Your task to perform on an android device: uninstall "Move to iOS" Image 0: 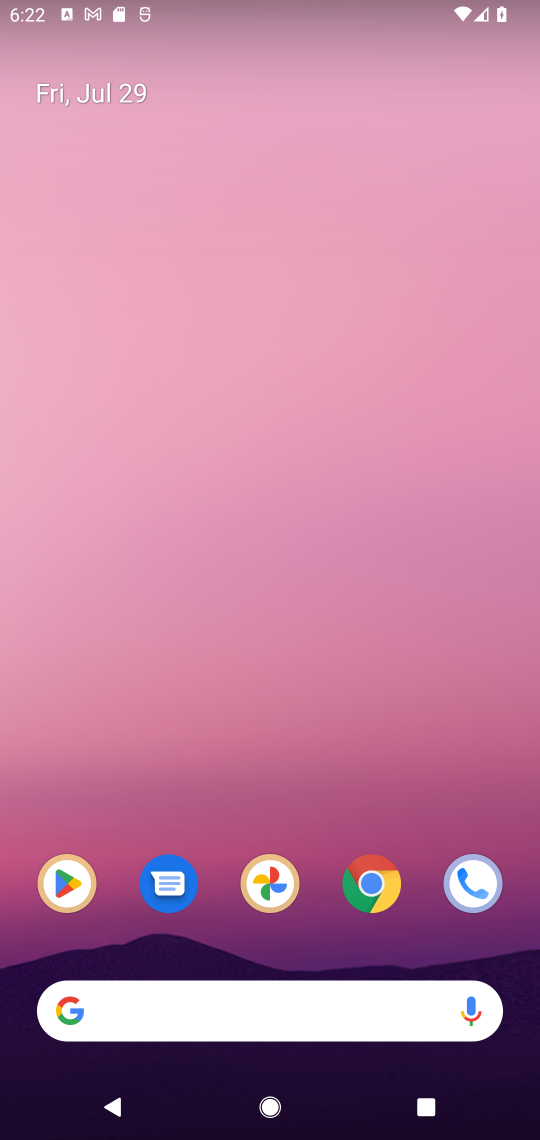
Step 0: click (46, 892)
Your task to perform on an android device: uninstall "Move to iOS" Image 1: 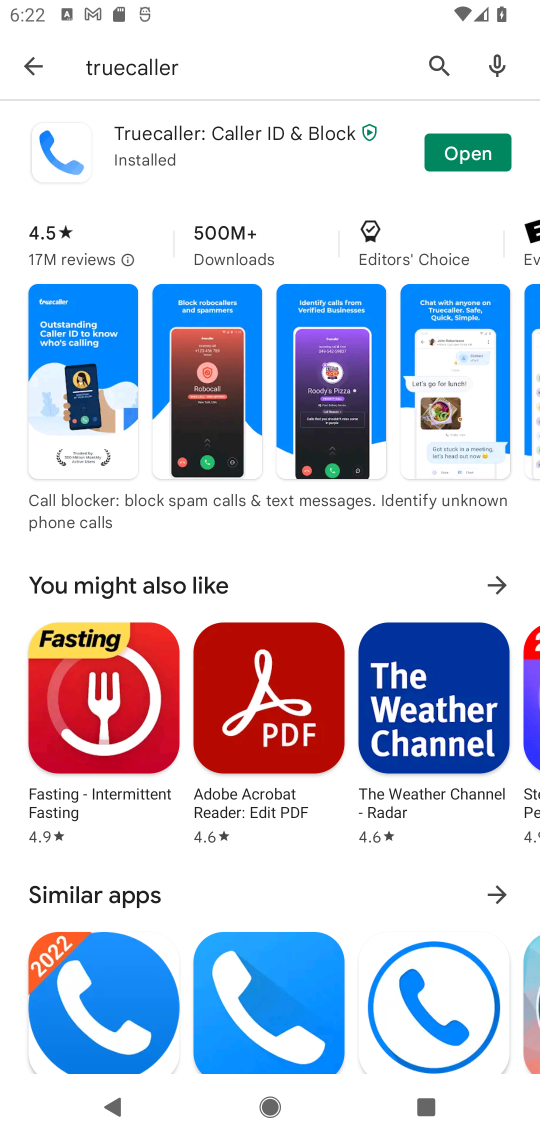
Step 1: click (462, 82)
Your task to perform on an android device: uninstall "Move to iOS" Image 2: 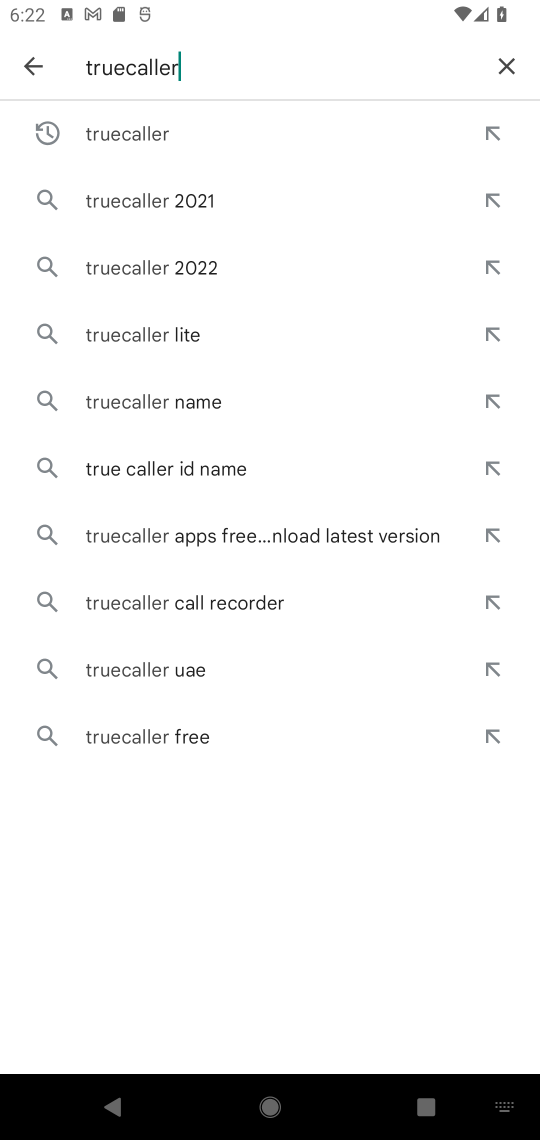
Step 2: click (504, 51)
Your task to perform on an android device: uninstall "Move to iOS" Image 3: 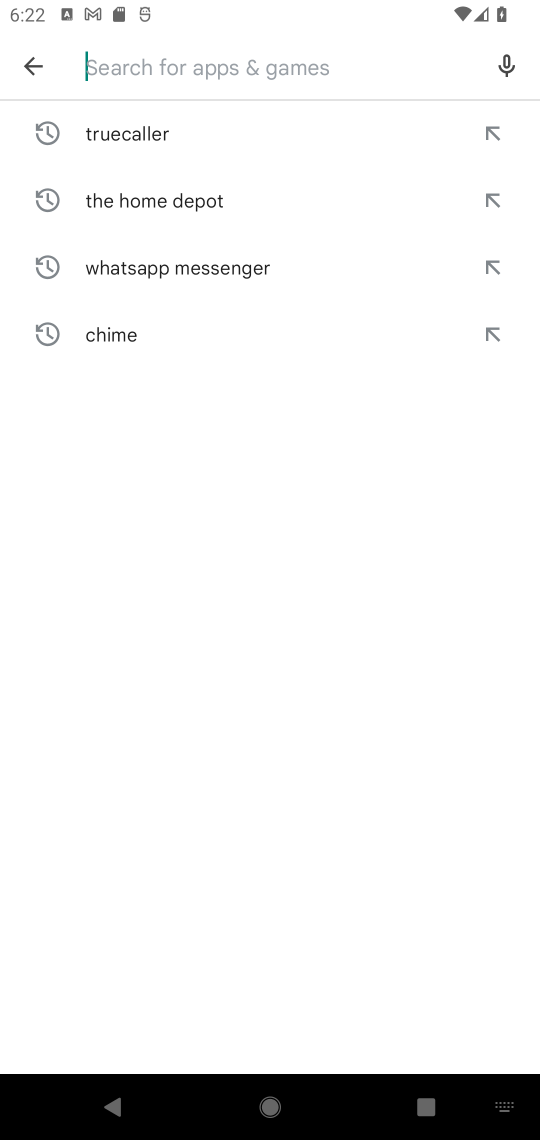
Step 3: click (192, 69)
Your task to perform on an android device: uninstall "Move to iOS" Image 4: 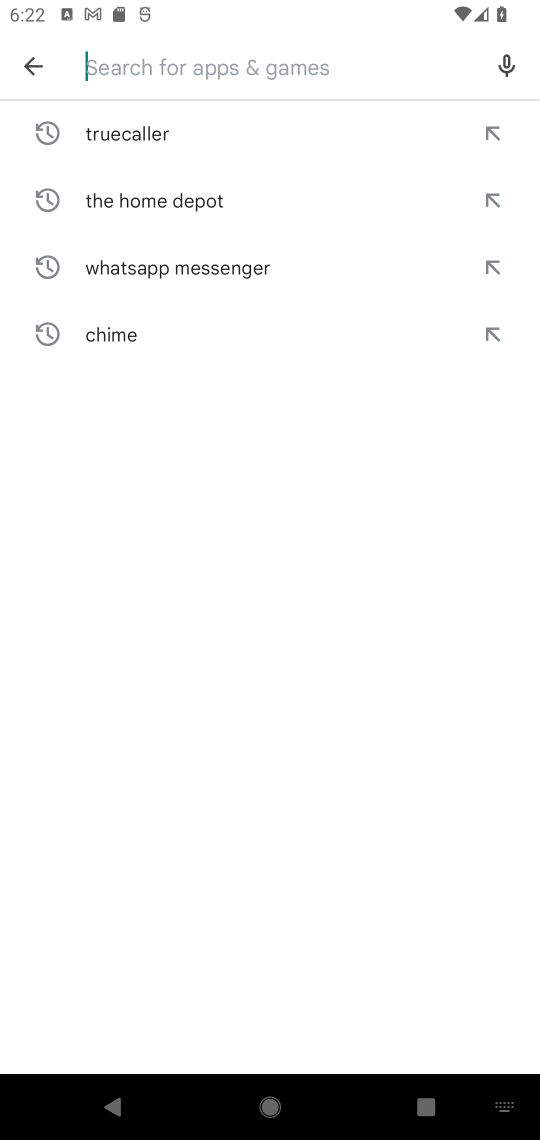
Step 4: click (215, 71)
Your task to perform on an android device: uninstall "Move to iOS" Image 5: 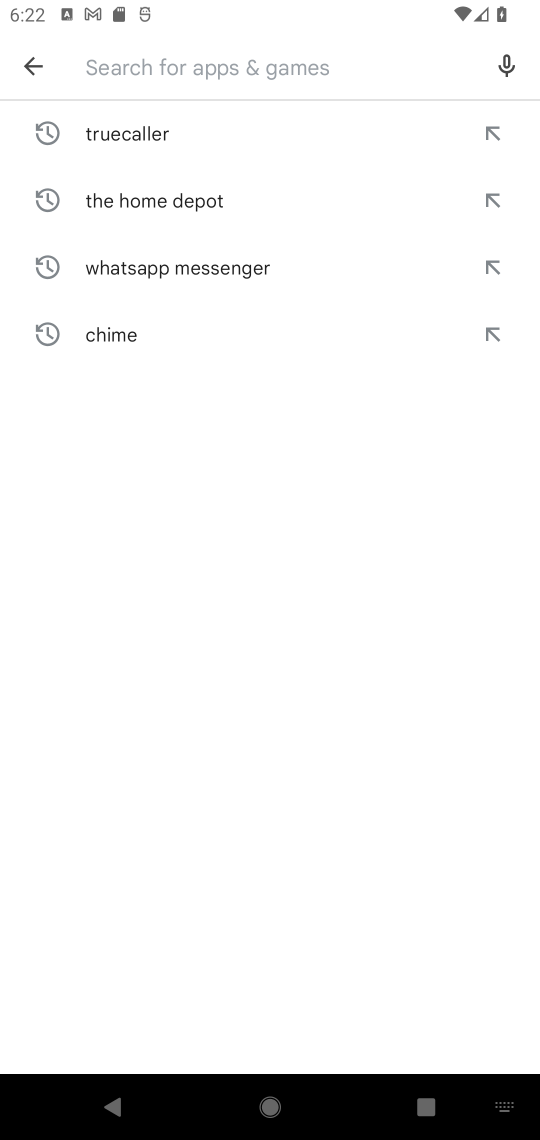
Step 5: click (188, 60)
Your task to perform on an android device: uninstall "Move to iOS" Image 6: 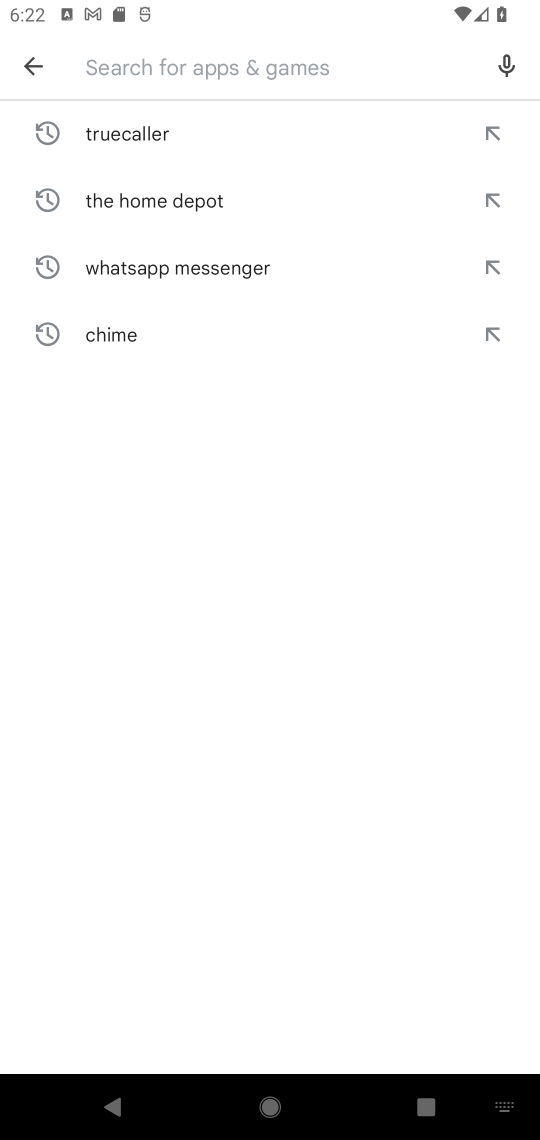
Step 6: type "move to ios"
Your task to perform on an android device: uninstall "Move to iOS" Image 7: 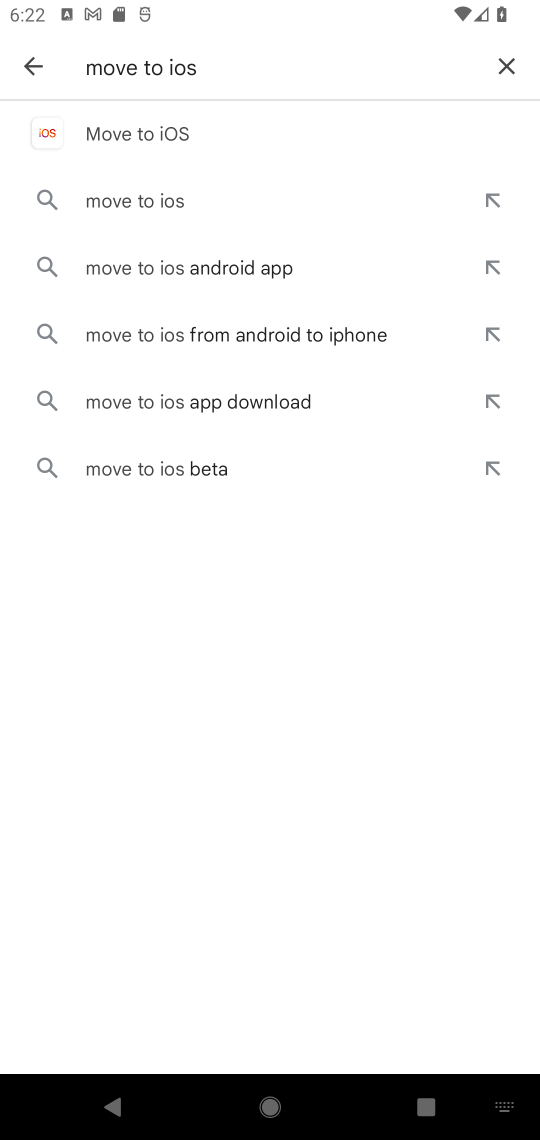
Step 7: click (151, 129)
Your task to perform on an android device: uninstall "Move to iOS" Image 8: 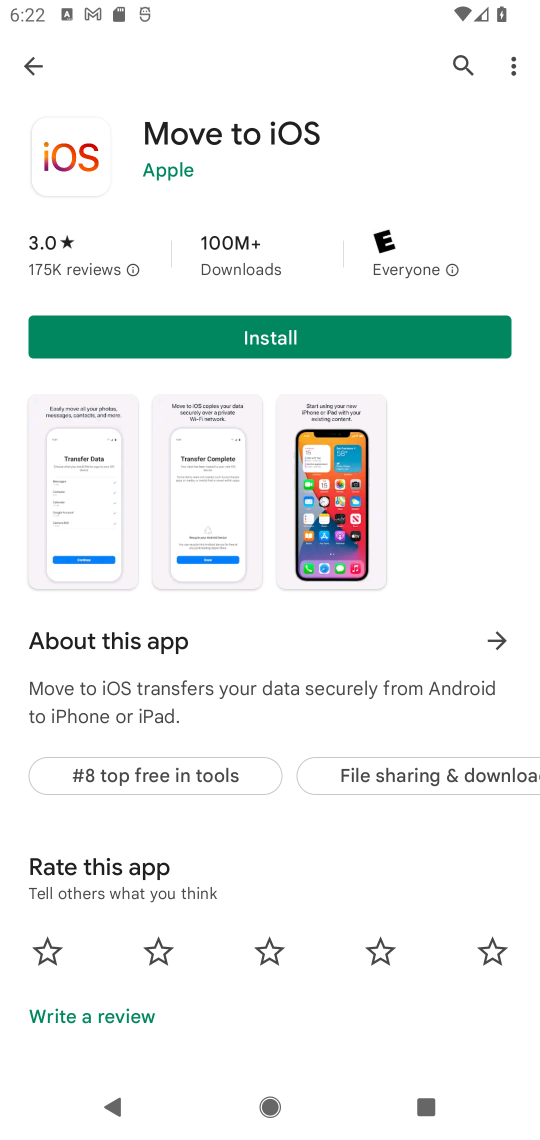
Step 8: task complete